Your task to perform on an android device: Toggle the flashlight Image 0: 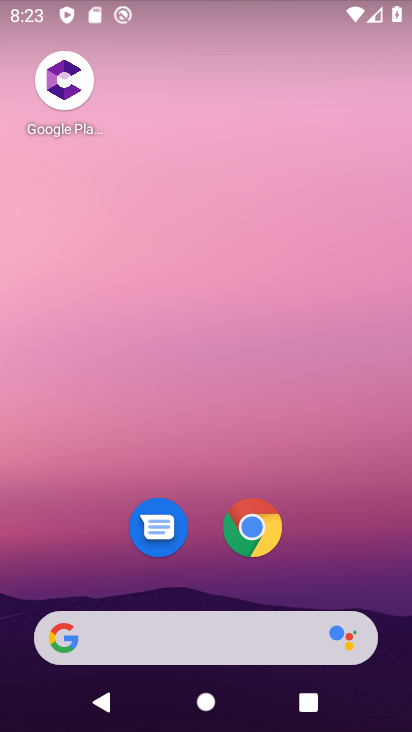
Step 0: drag from (280, 7) to (173, 564)
Your task to perform on an android device: Toggle the flashlight Image 1: 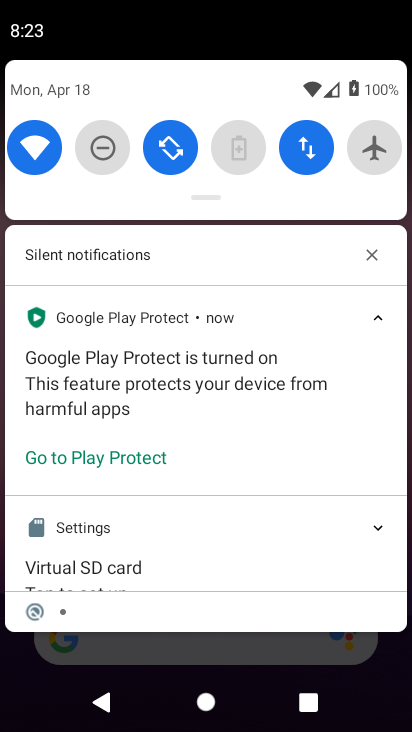
Step 1: drag from (194, 111) to (235, 730)
Your task to perform on an android device: Toggle the flashlight Image 2: 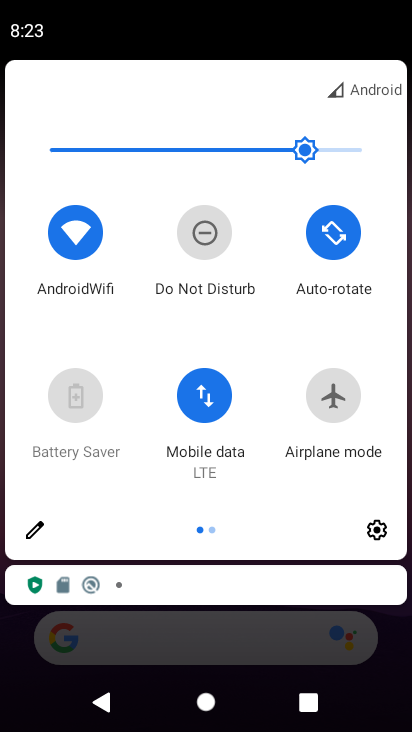
Step 2: click (373, 370)
Your task to perform on an android device: Toggle the flashlight Image 3: 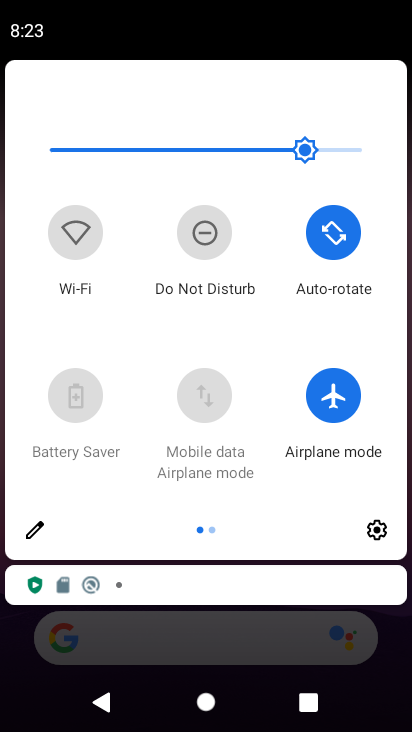
Step 3: click (373, 370)
Your task to perform on an android device: Toggle the flashlight Image 4: 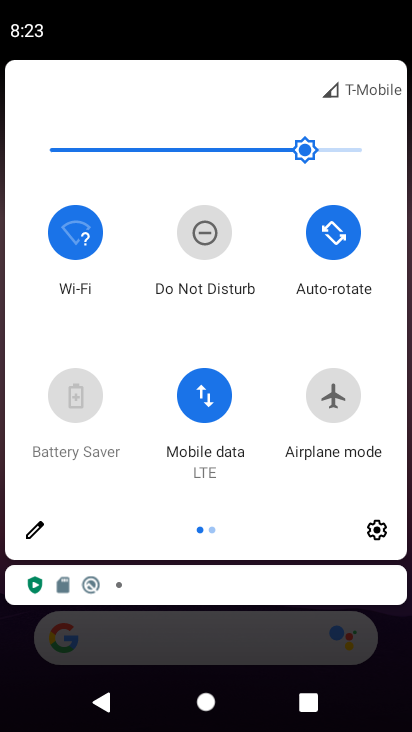
Step 4: click (388, 538)
Your task to perform on an android device: Toggle the flashlight Image 5: 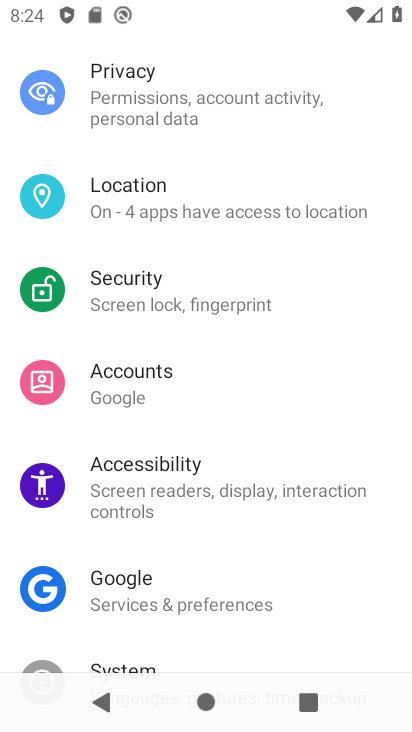
Step 5: task complete